Your task to perform on an android device: Search for seafood restaurants on Google Maps Image 0: 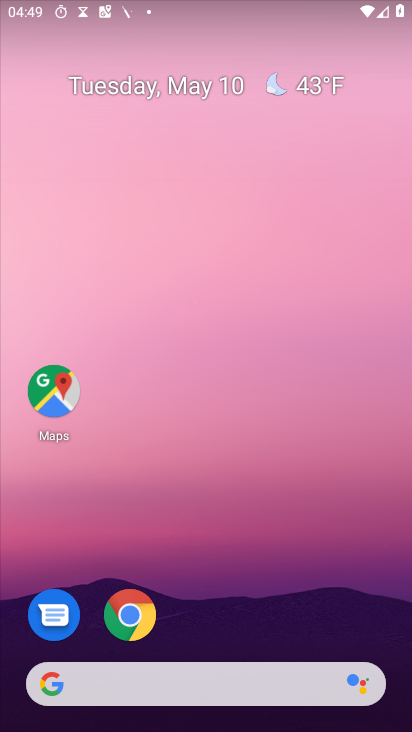
Step 0: drag from (250, 687) to (186, 0)
Your task to perform on an android device: Search for seafood restaurants on Google Maps Image 1: 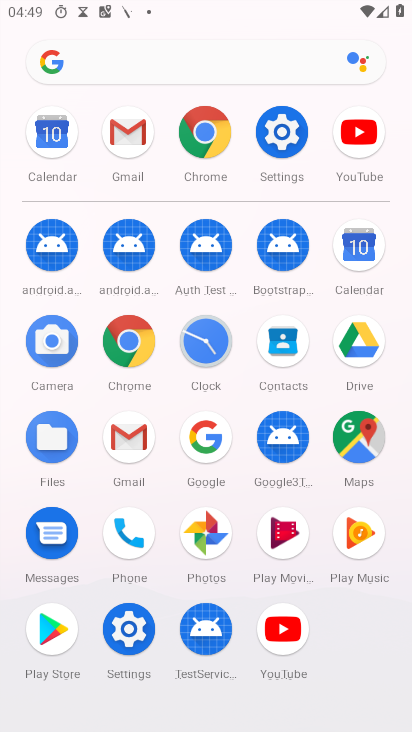
Step 1: click (358, 441)
Your task to perform on an android device: Search for seafood restaurants on Google Maps Image 2: 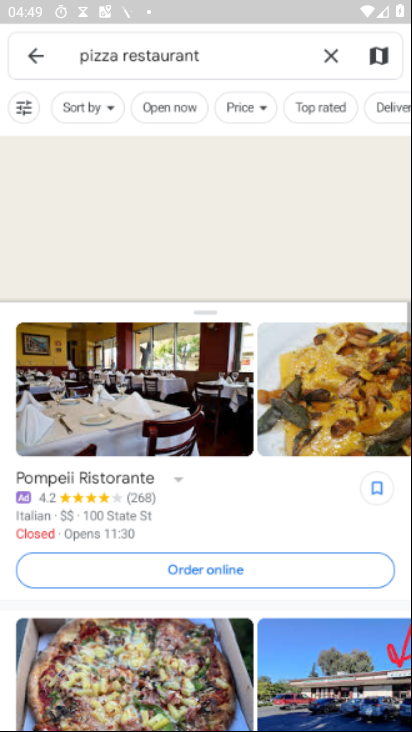
Step 2: click (313, 52)
Your task to perform on an android device: Search for seafood restaurants on Google Maps Image 3: 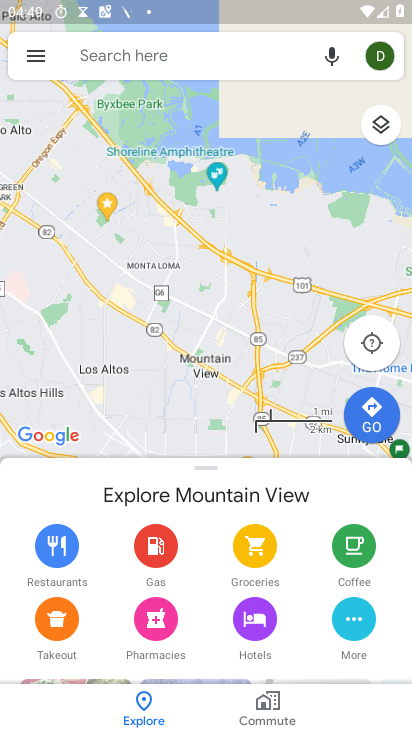
Step 3: click (258, 57)
Your task to perform on an android device: Search for seafood restaurants on Google Maps Image 4: 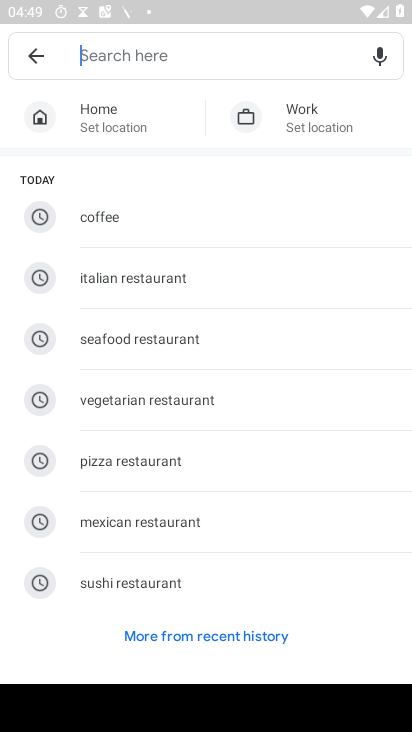
Step 4: click (201, 346)
Your task to perform on an android device: Search for seafood restaurants on Google Maps Image 5: 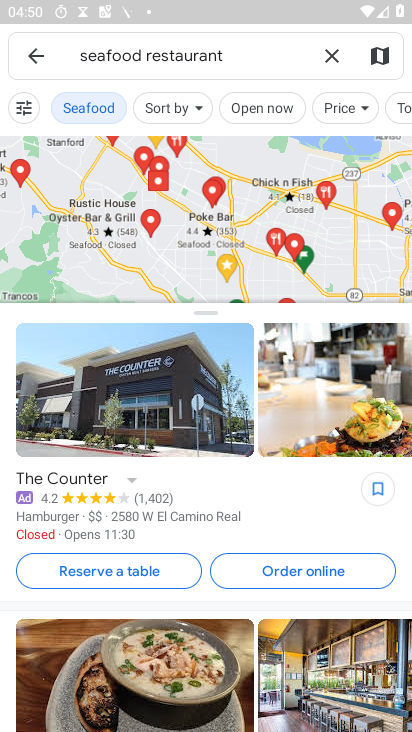
Step 5: task complete